Your task to perform on an android device: Open Yahoo.com Image 0: 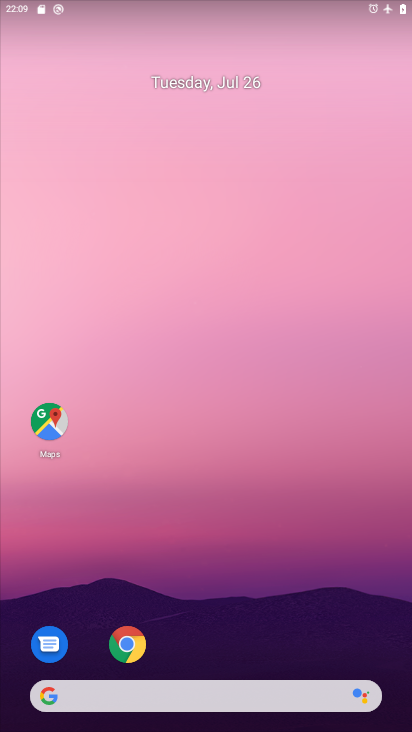
Step 0: click (132, 653)
Your task to perform on an android device: Open Yahoo.com Image 1: 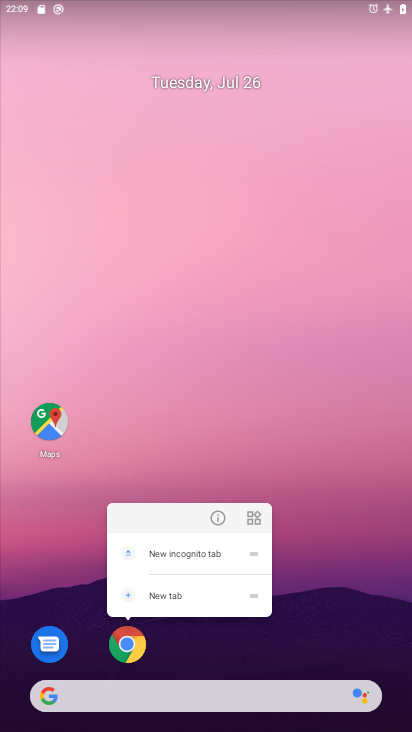
Step 1: click (132, 653)
Your task to perform on an android device: Open Yahoo.com Image 2: 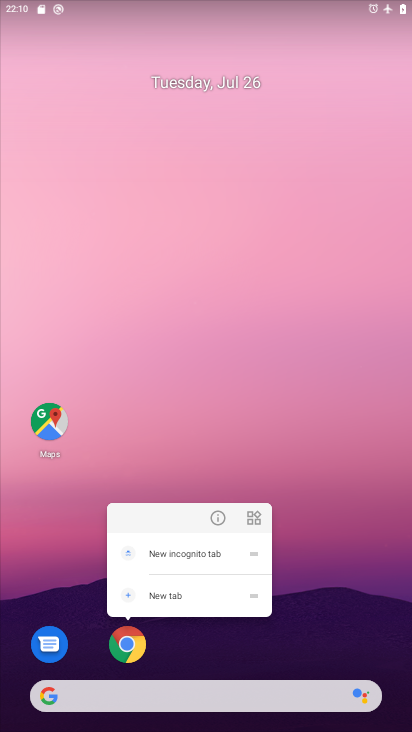
Step 2: click (132, 653)
Your task to perform on an android device: Open Yahoo.com Image 3: 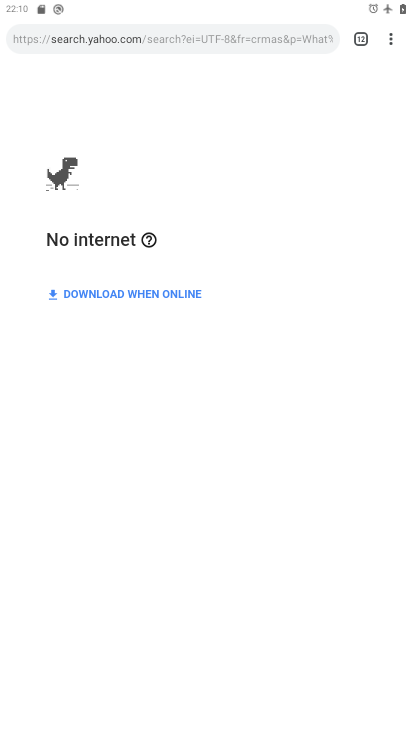
Step 3: click (387, 45)
Your task to perform on an android device: Open Yahoo.com Image 4: 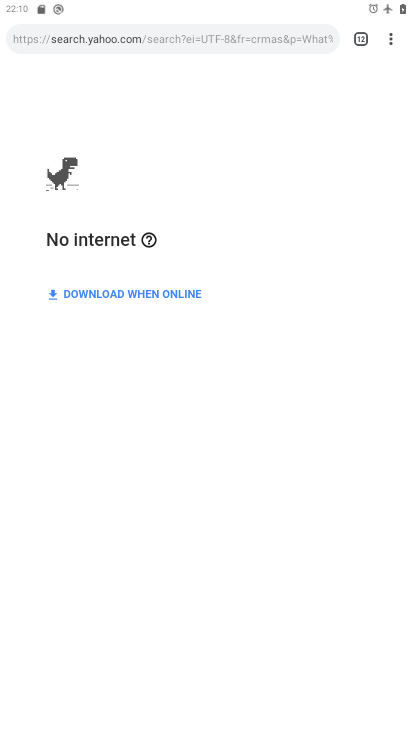
Step 4: click (392, 39)
Your task to perform on an android device: Open Yahoo.com Image 5: 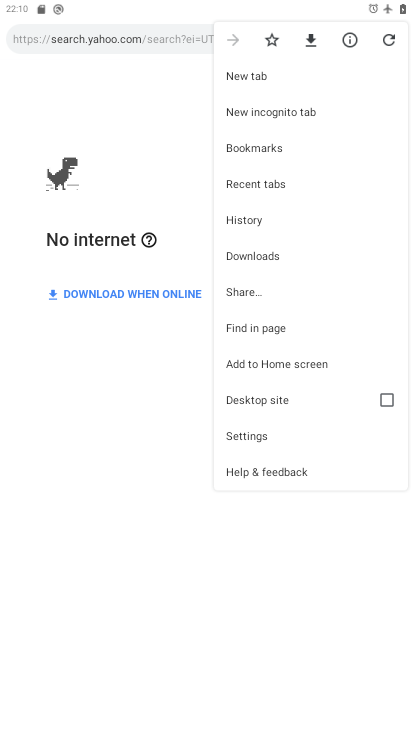
Step 5: click (237, 78)
Your task to perform on an android device: Open Yahoo.com Image 6: 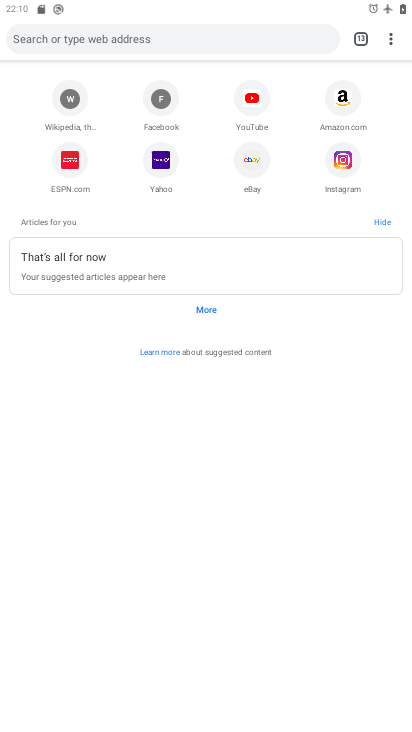
Step 6: click (163, 166)
Your task to perform on an android device: Open Yahoo.com Image 7: 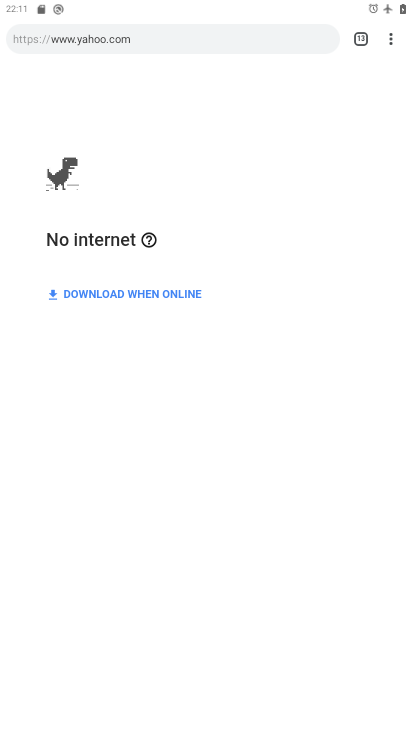
Step 7: task complete